Your task to perform on an android device: turn off priority inbox in the gmail app Image 0: 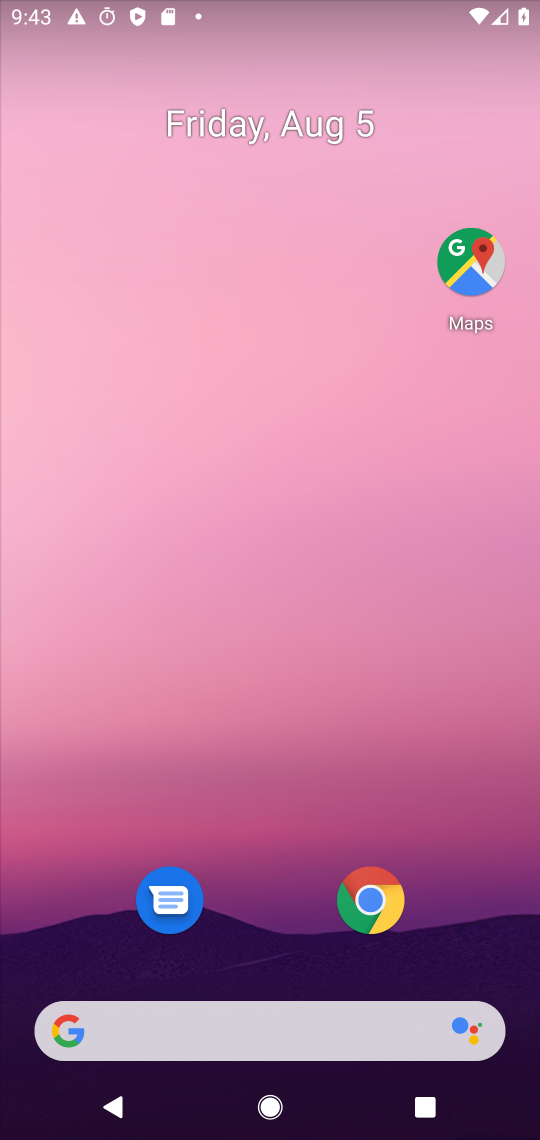
Step 0: drag from (483, 964) to (318, 193)
Your task to perform on an android device: turn off priority inbox in the gmail app Image 1: 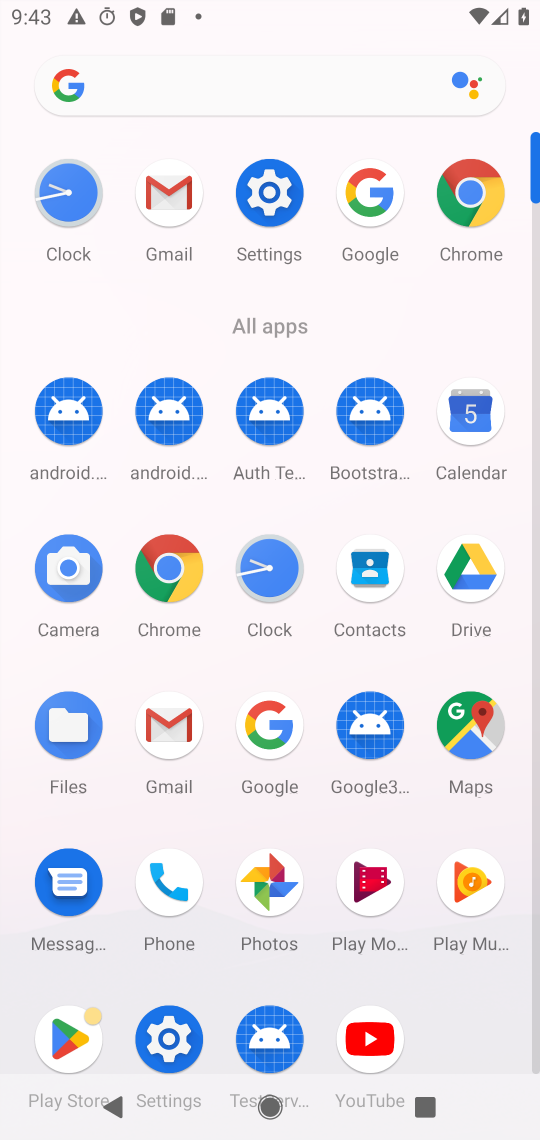
Step 1: drag from (285, 412) to (246, 130)
Your task to perform on an android device: turn off priority inbox in the gmail app Image 2: 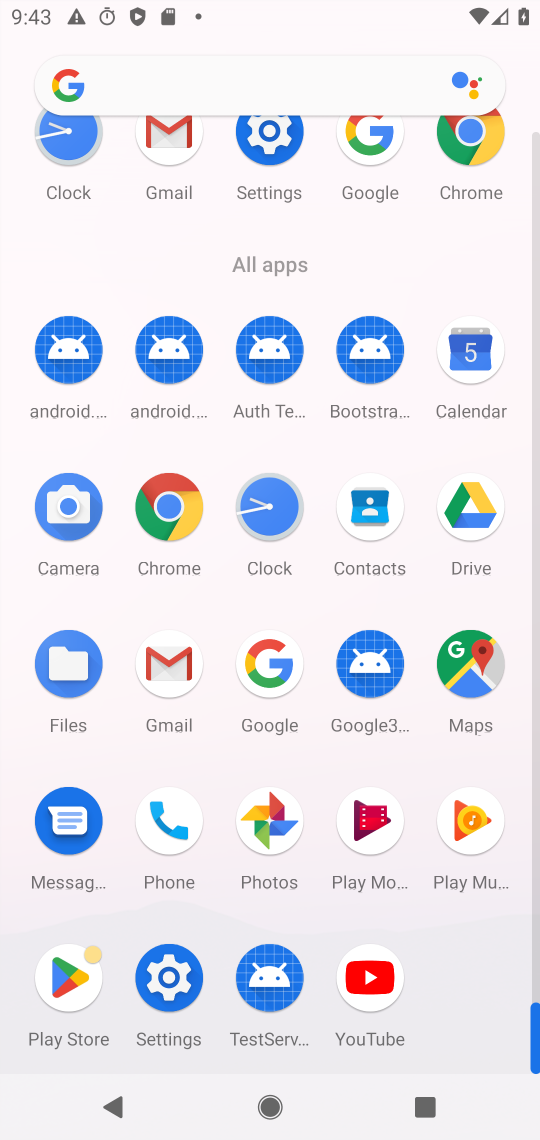
Step 2: click (175, 140)
Your task to perform on an android device: turn off priority inbox in the gmail app Image 3: 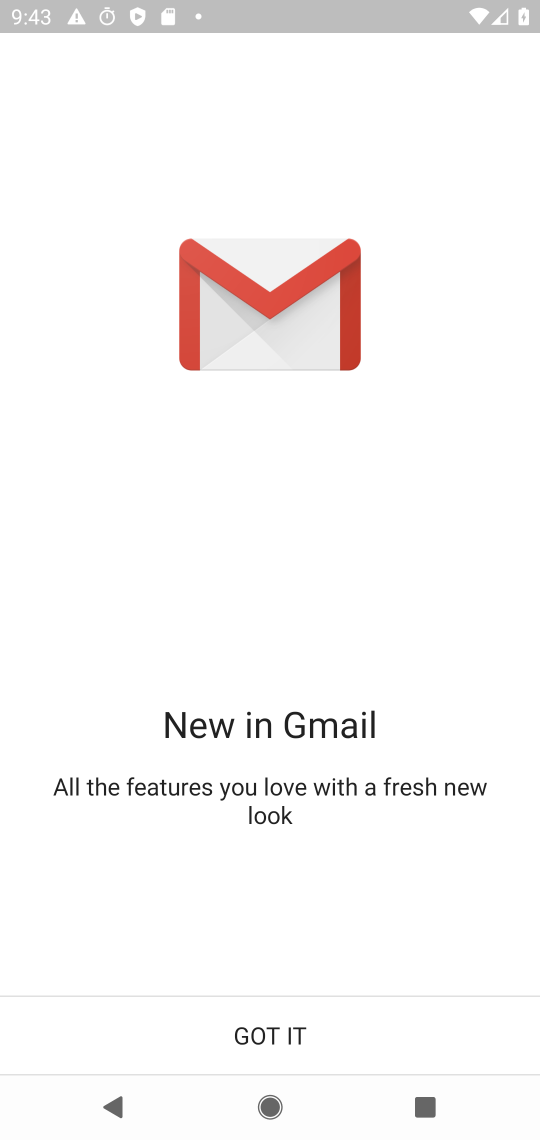
Step 3: click (322, 1040)
Your task to perform on an android device: turn off priority inbox in the gmail app Image 4: 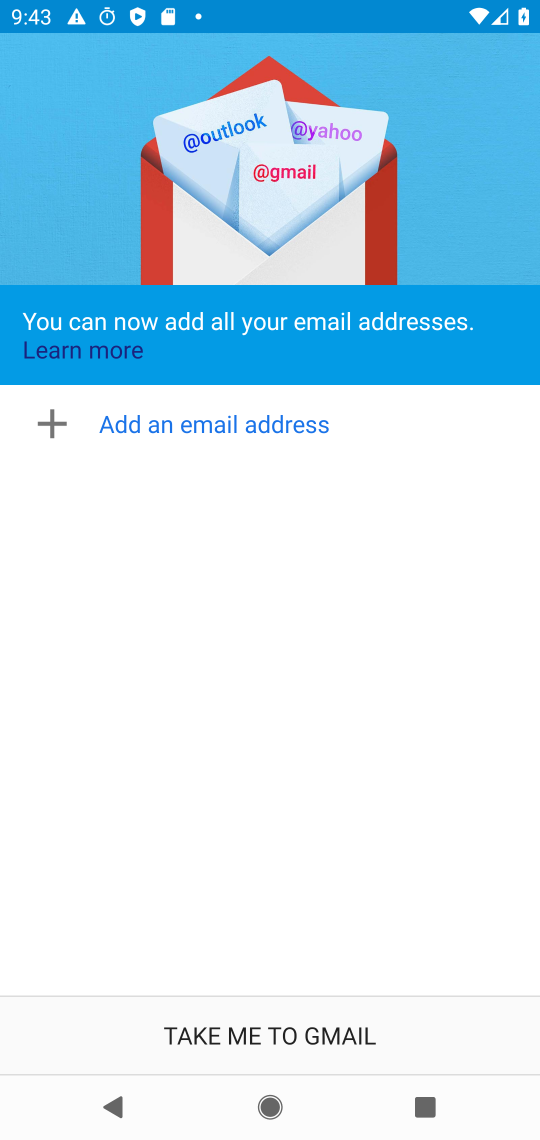
Step 4: task complete